Your task to perform on an android device: Open display settings Image 0: 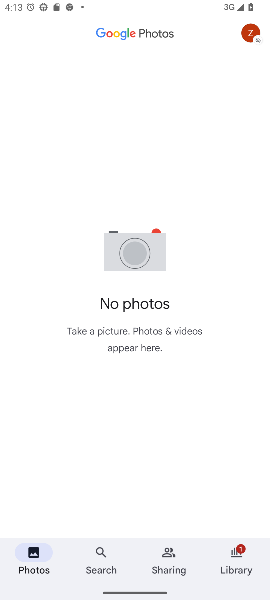
Step 0: press home button
Your task to perform on an android device: Open display settings Image 1: 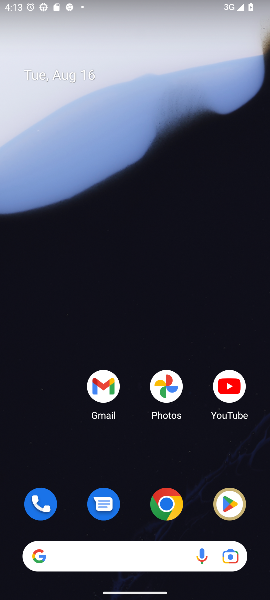
Step 1: drag from (136, 507) to (117, 127)
Your task to perform on an android device: Open display settings Image 2: 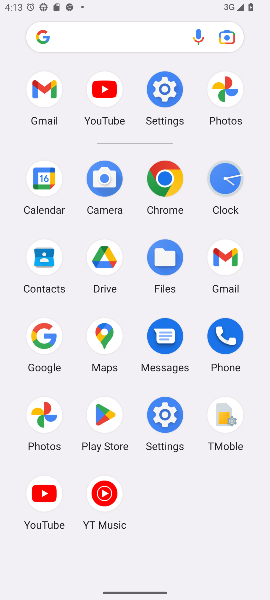
Step 2: click (165, 413)
Your task to perform on an android device: Open display settings Image 3: 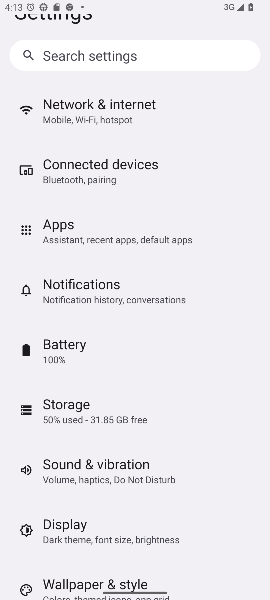
Step 3: click (66, 531)
Your task to perform on an android device: Open display settings Image 4: 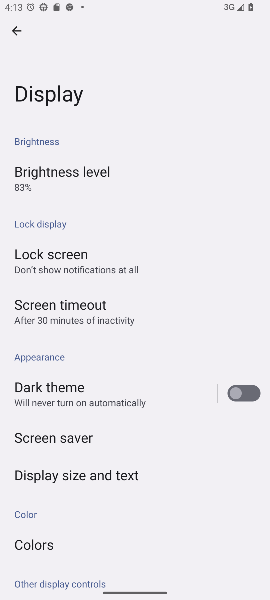
Step 4: task complete